Your task to perform on an android device: turn off javascript in the chrome app Image 0: 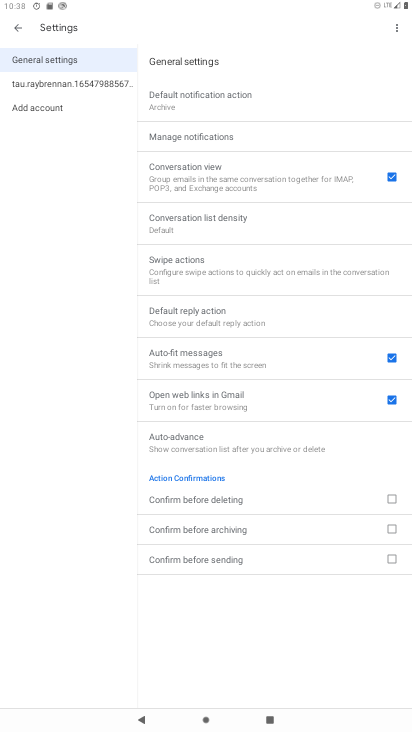
Step 0: click (68, 85)
Your task to perform on an android device: turn off javascript in the chrome app Image 1: 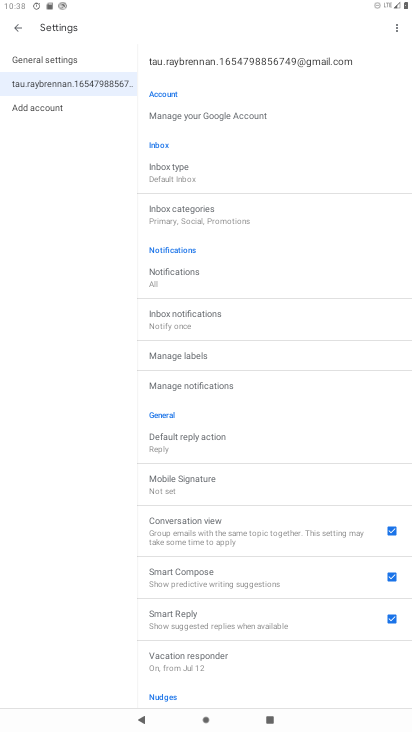
Step 1: press home button
Your task to perform on an android device: turn off javascript in the chrome app Image 2: 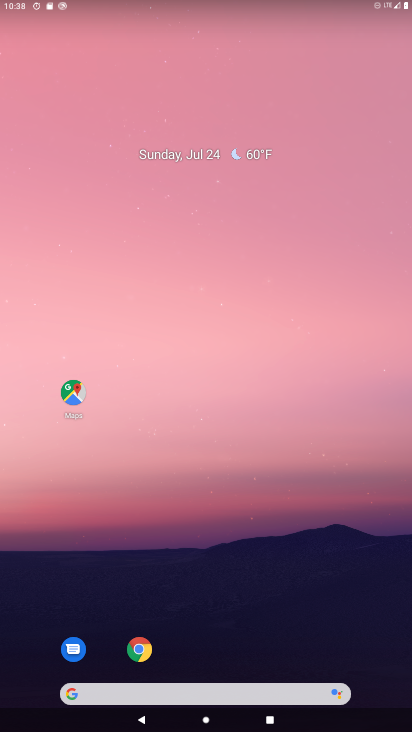
Step 2: drag from (265, 611) to (277, 165)
Your task to perform on an android device: turn off javascript in the chrome app Image 3: 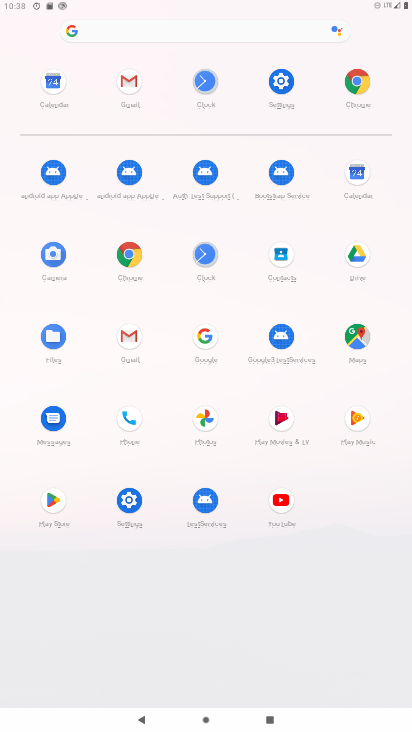
Step 3: click (356, 78)
Your task to perform on an android device: turn off javascript in the chrome app Image 4: 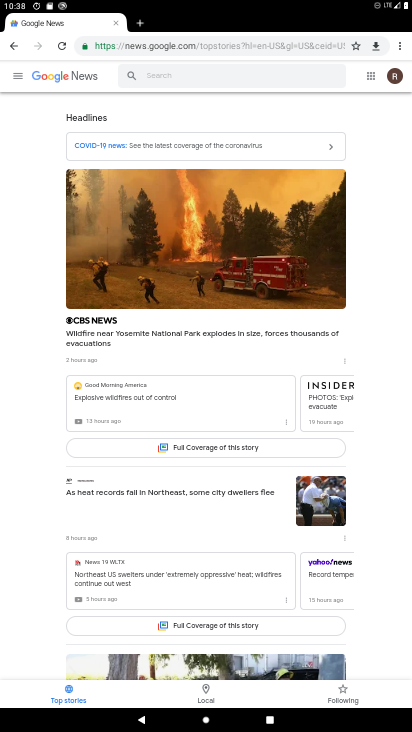
Step 4: drag from (396, 36) to (307, 342)
Your task to perform on an android device: turn off javascript in the chrome app Image 5: 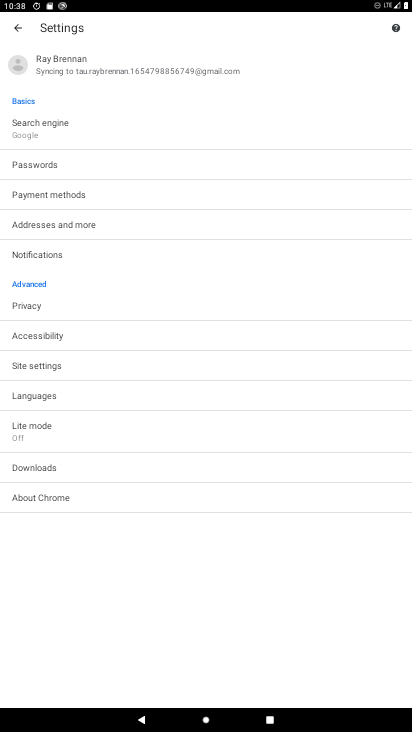
Step 5: click (59, 370)
Your task to perform on an android device: turn off javascript in the chrome app Image 6: 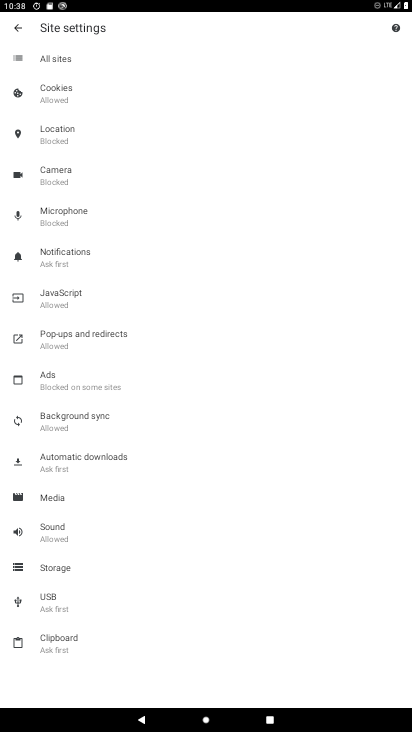
Step 6: click (79, 307)
Your task to perform on an android device: turn off javascript in the chrome app Image 7: 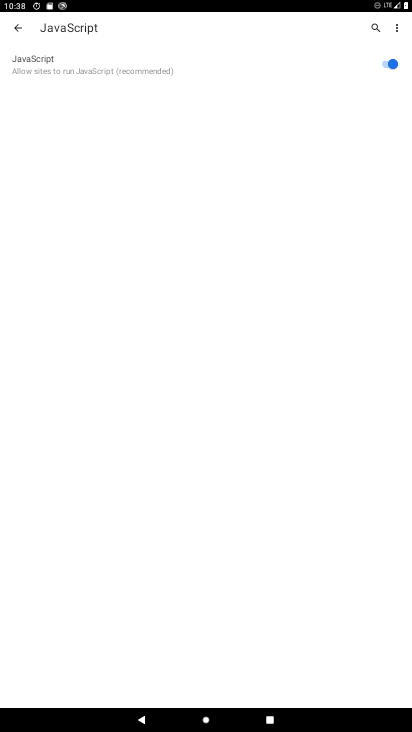
Step 7: click (382, 60)
Your task to perform on an android device: turn off javascript in the chrome app Image 8: 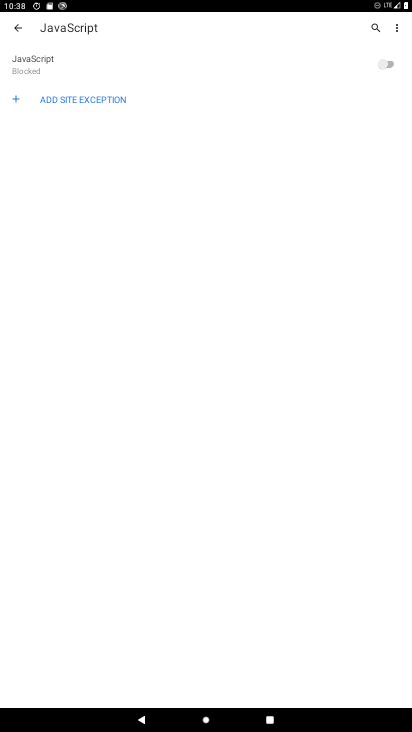
Step 8: task complete